Your task to perform on an android device: turn smart compose on in the gmail app Image 0: 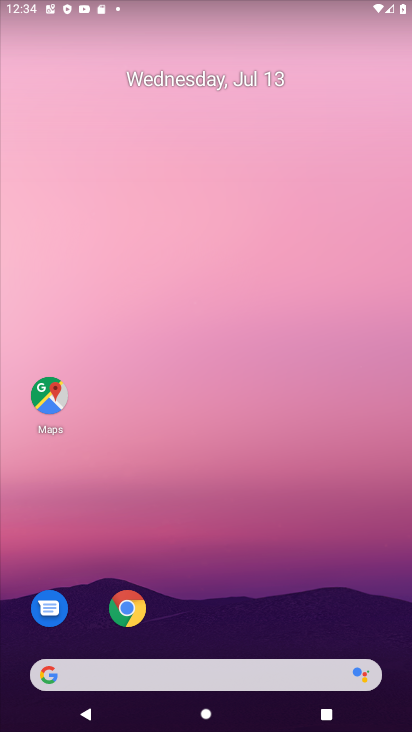
Step 0: drag from (240, 642) to (285, 32)
Your task to perform on an android device: turn smart compose on in the gmail app Image 1: 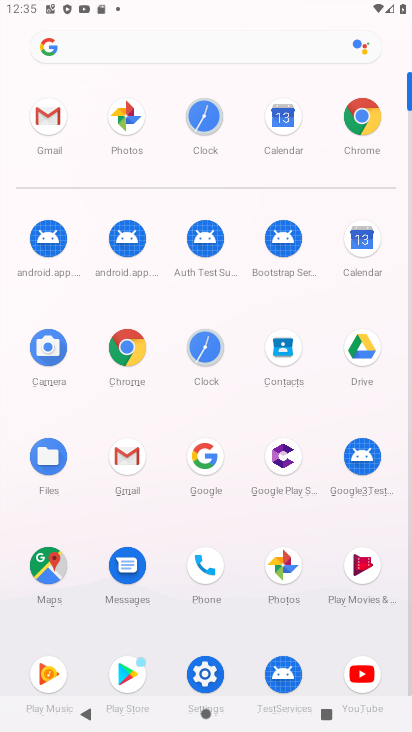
Step 1: click (127, 451)
Your task to perform on an android device: turn smart compose on in the gmail app Image 2: 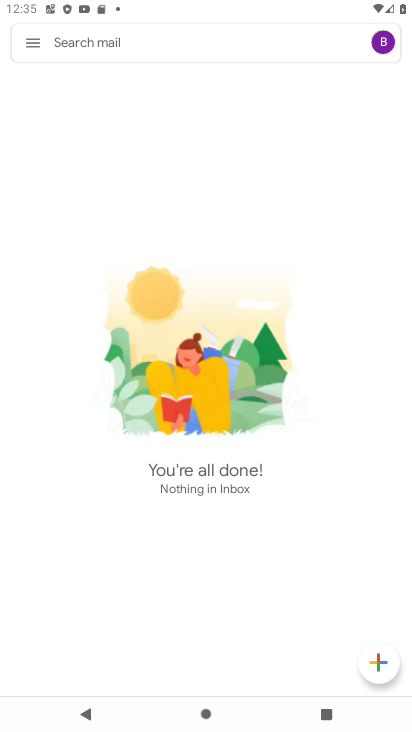
Step 2: click (29, 33)
Your task to perform on an android device: turn smart compose on in the gmail app Image 3: 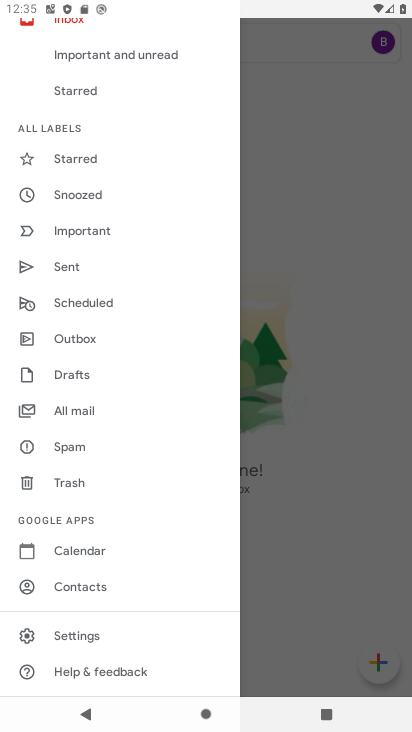
Step 3: click (97, 632)
Your task to perform on an android device: turn smart compose on in the gmail app Image 4: 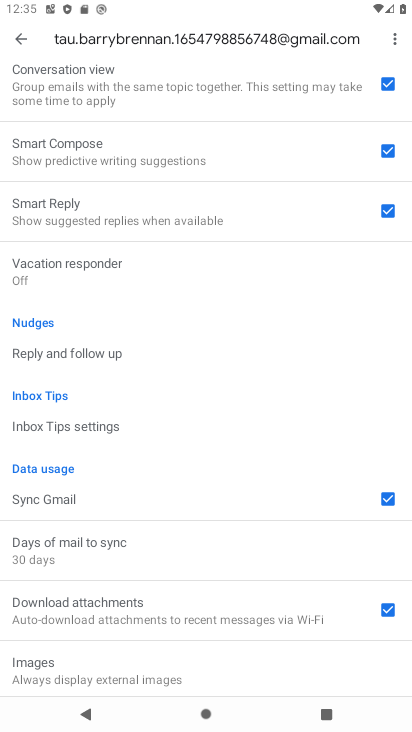
Step 4: task complete